Your task to perform on an android device: Empty the shopping cart on costco.com. Add "usb-b" to the cart on costco.com, then select checkout. Image 0: 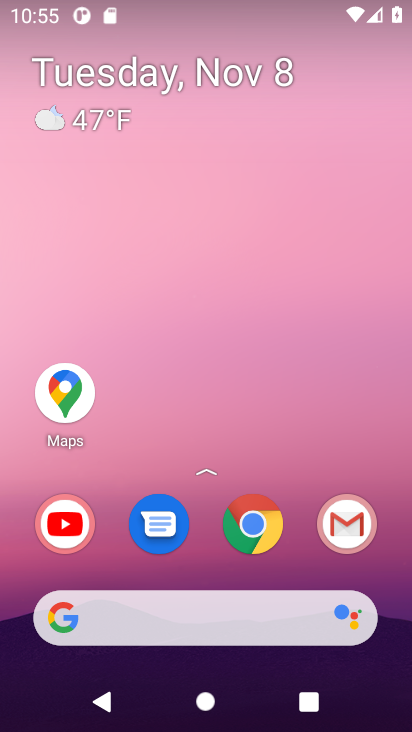
Step 0: click (257, 533)
Your task to perform on an android device: Empty the shopping cart on costco.com. Add "usb-b" to the cart on costco.com, then select checkout. Image 1: 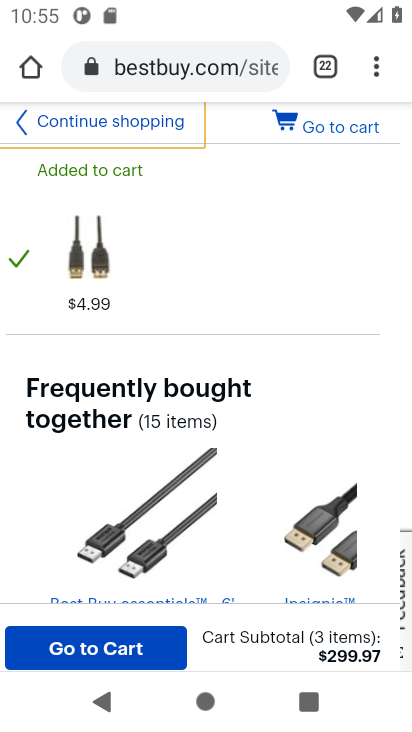
Step 1: click (190, 73)
Your task to perform on an android device: Empty the shopping cart on costco.com. Add "usb-b" to the cart on costco.com, then select checkout. Image 2: 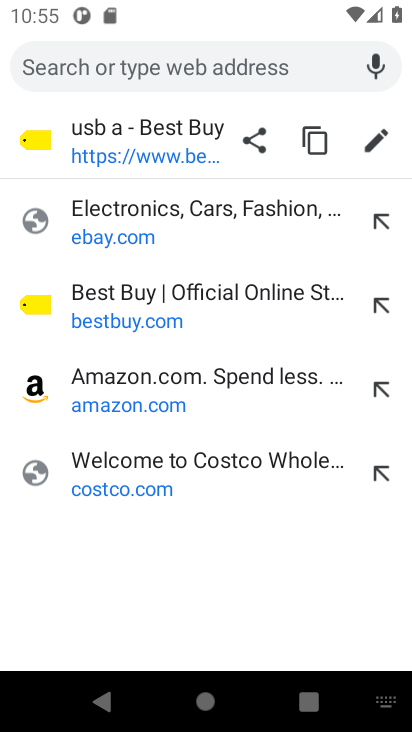
Step 2: click (131, 466)
Your task to perform on an android device: Empty the shopping cart on costco.com. Add "usb-b" to the cart on costco.com, then select checkout. Image 3: 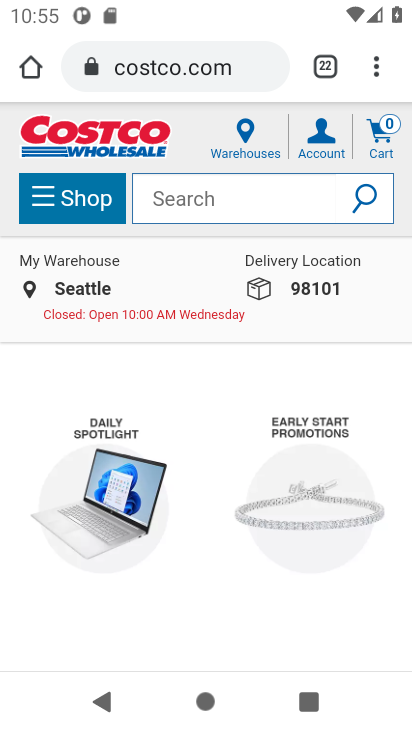
Step 3: click (383, 144)
Your task to perform on an android device: Empty the shopping cart on costco.com. Add "usb-b" to the cart on costco.com, then select checkout. Image 4: 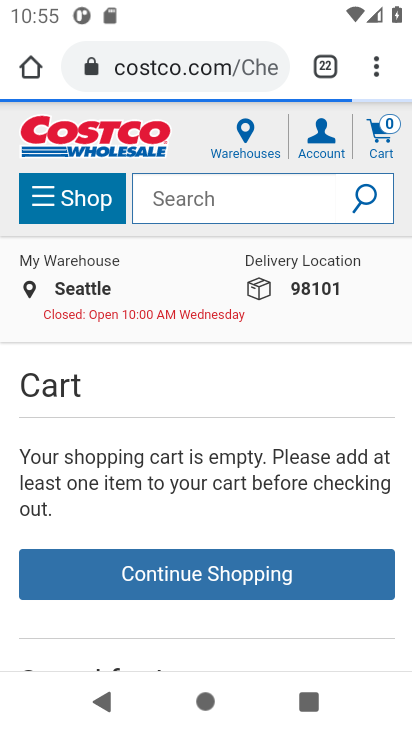
Step 4: click (304, 192)
Your task to perform on an android device: Empty the shopping cart on costco.com. Add "usb-b" to the cart on costco.com, then select checkout. Image 5: 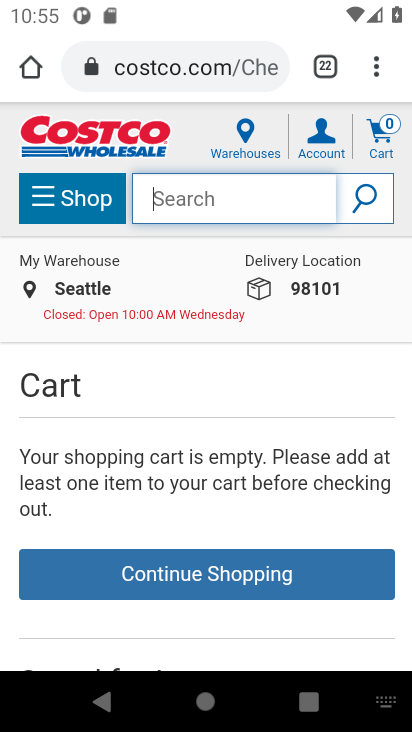
Step 5: click (218, 206)
Your task to perform on an android device: Empty the shopping cart on costco.com. Add "usb-b" to the cart on costco.com, then select checkout. Image 6: 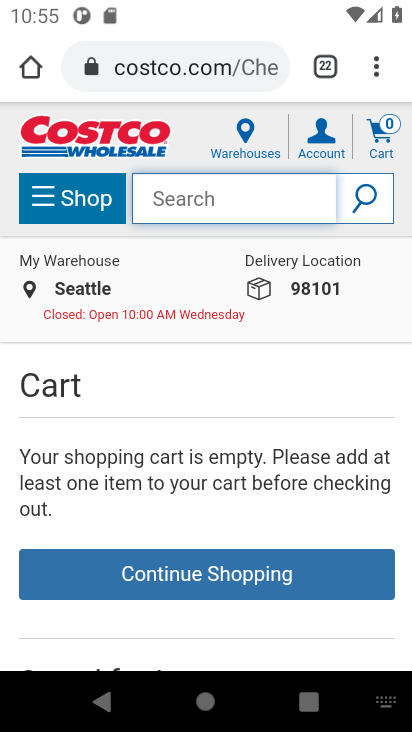
Step 6: type "usb-b"
Your task to perform on an android device: Empty the shopping cart on costco.com. Add "usb-b" to the cart on costco.com, then select checkout. Image 7: 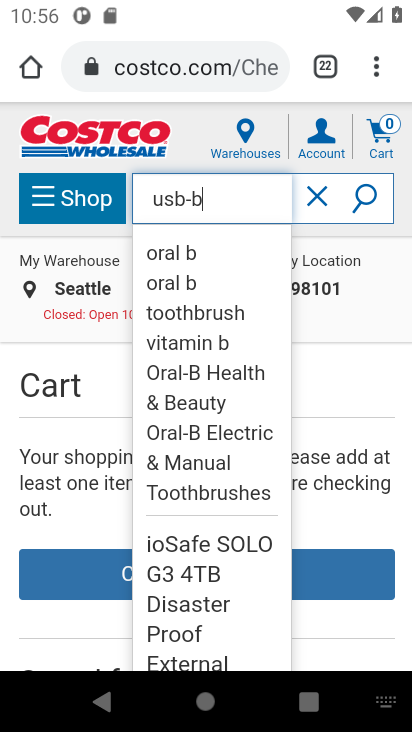
Step 7: click (371, 193)
Your task to perform on an android device: Empty the shopping cart on costco.com. Add "usb-b" to the cart on costco.com, then select checkout. Image 8: 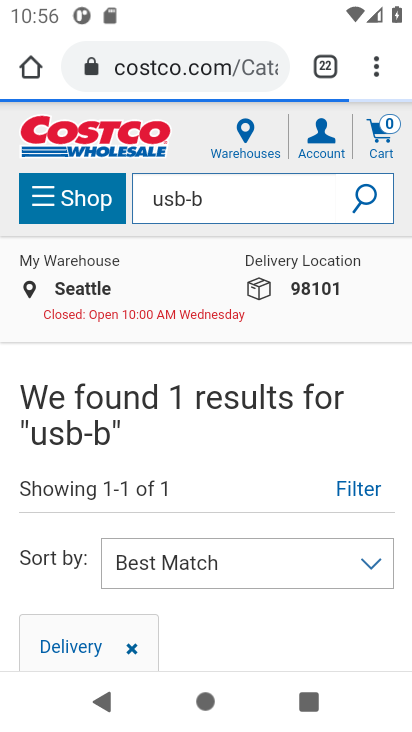
Step 8: task complete